Your task to perform on an android device: turn notification dots off Image 0: 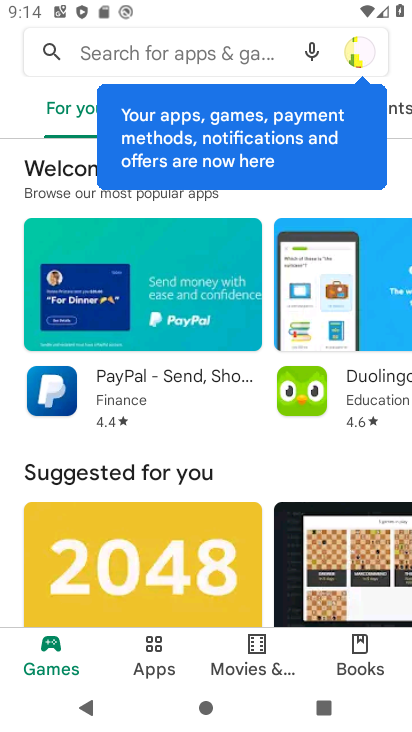
Step 0: press home button
Your task to perform on an android device: turn notification dots off Image 1: 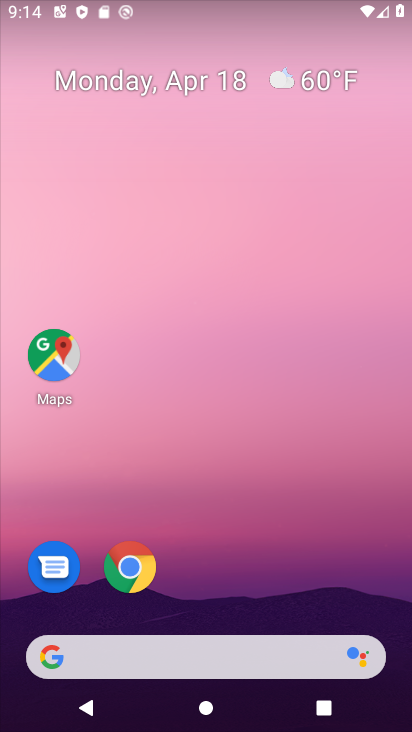
Step 1: drag from (238, 142) to (263, 7)
Your task to perform on an android device: turn notification dots off Image 2: 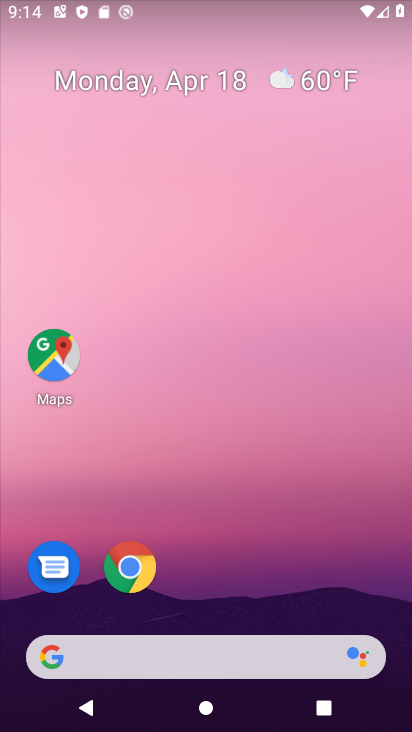
Step 2: drag from (217, 380) to (259, 6)
Your task to perform on an android device: turn notification dots off Image 3: 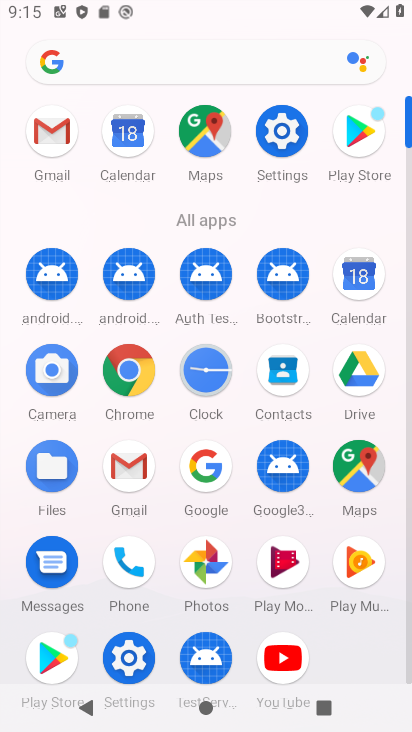
Step 3: drag from (237, 597) to (279, 111)
Your task to perform on an android device: turn notification dots off Image 4: 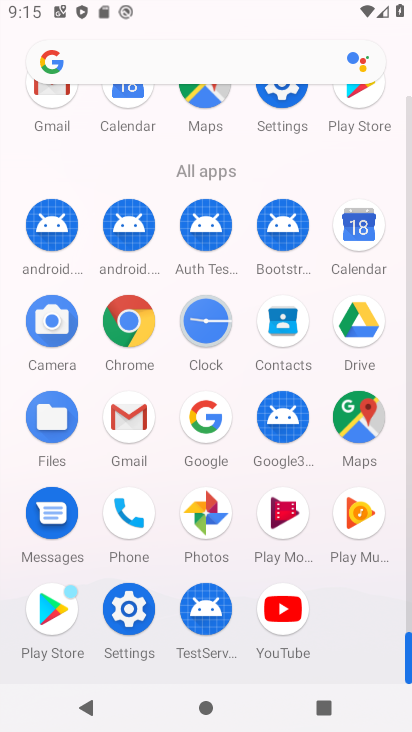
Step 4: click (279, 111)
Your task to perform on an android device: turn notification dots off Image 5: 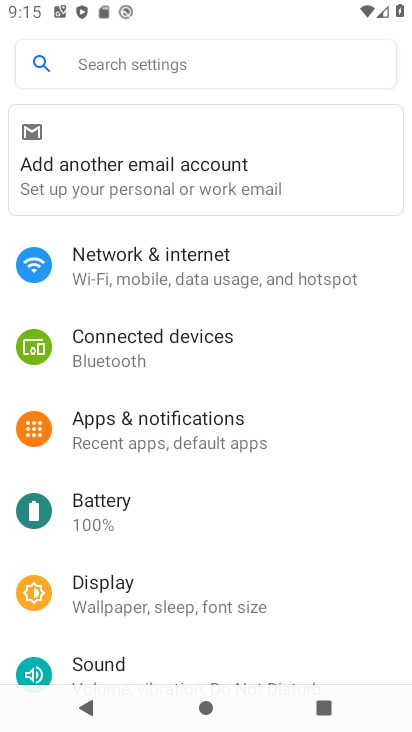
Step 5: click (191, 430)
Your task to perform on an android device: turn notification dots off Image 6: 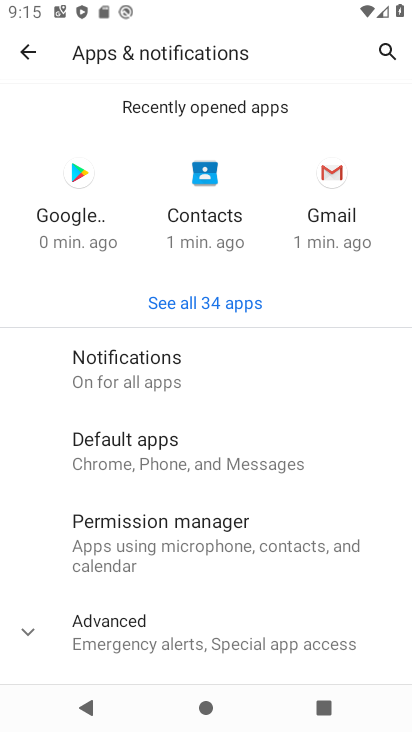
Step 6: click (183, 378)
Your task to perform on an android device: turn notification dots off Image 7: 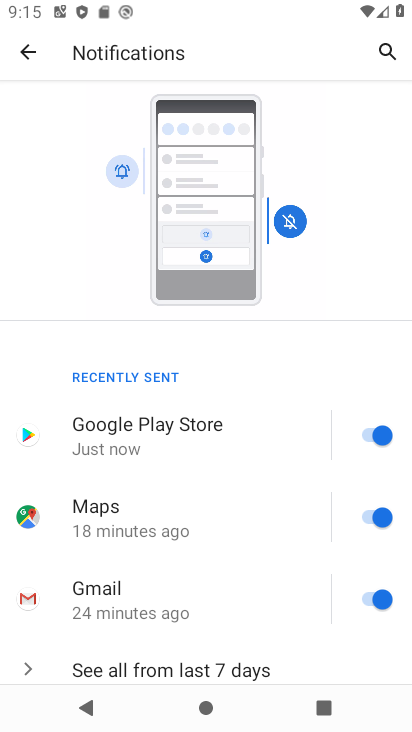
Step 7: drag from (199, 531) to (271, 27)
Your task to perform on an android device: turn notification dots off Image 8: 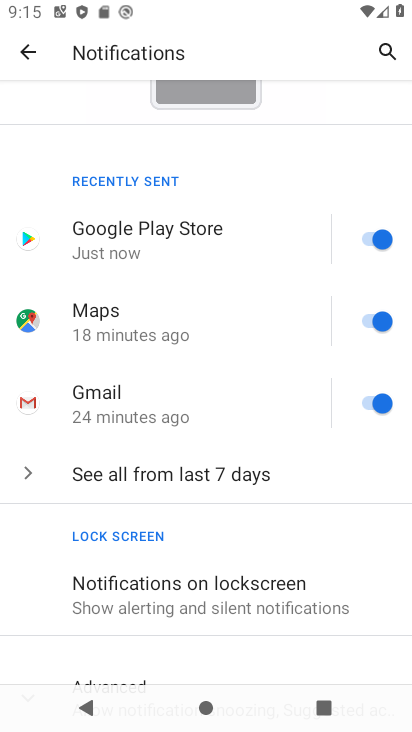
Step 8: drag from (215, 579) to (249, 237)
Your task to perform on an android device: turn notification dots off Image 9: 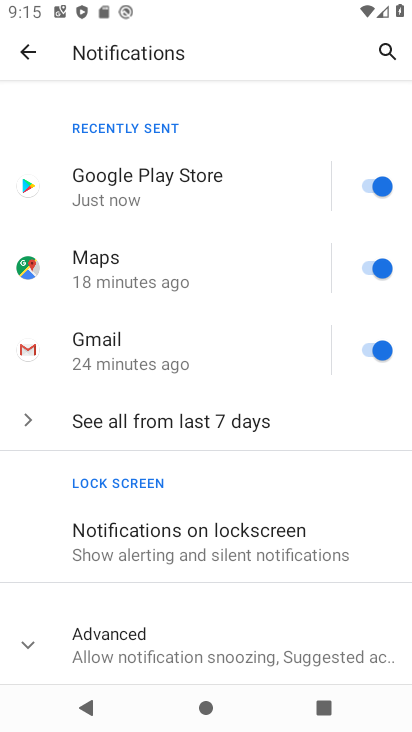
Step 9: click (134, 647)
Your task to perform on an android device: turn notification dots off Image 10: 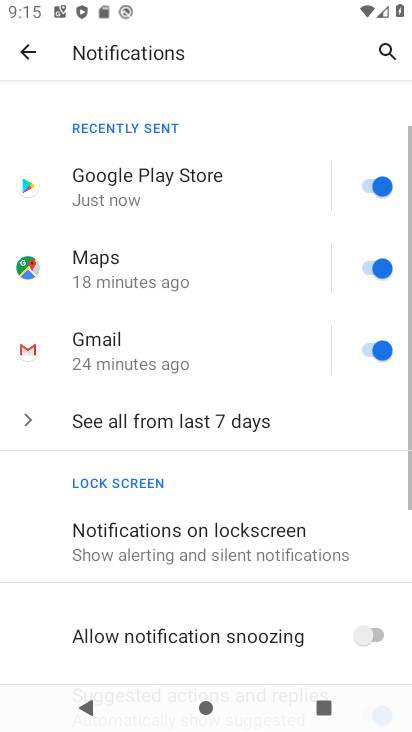
Step 10: drag from (152, 501) to (248, 170)
Your task to perform on an android device: turn notification dots off Image 11: 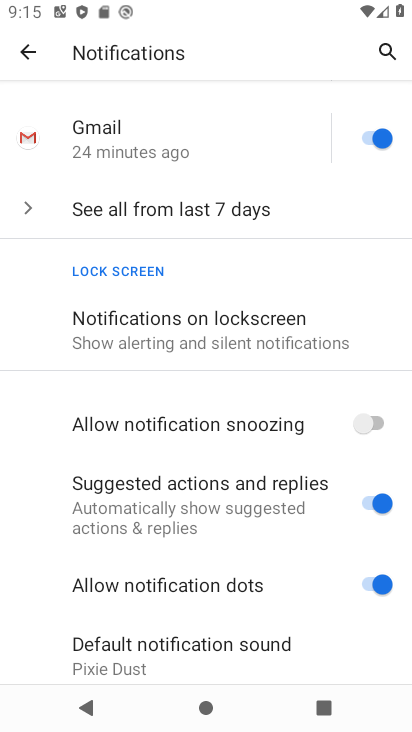
Step 11: click (370, 586)
Your task to perform on an android device: turn notification dots off Image 12: 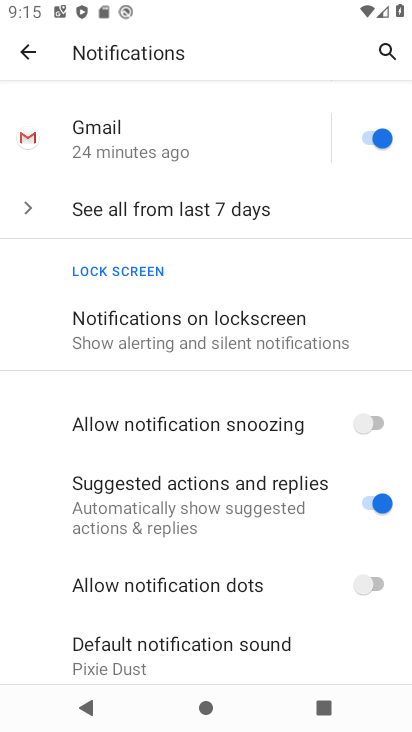
Step 12: task complete